Your task to perform on an android device: turn off notifications settings in the gmail app Image 0: 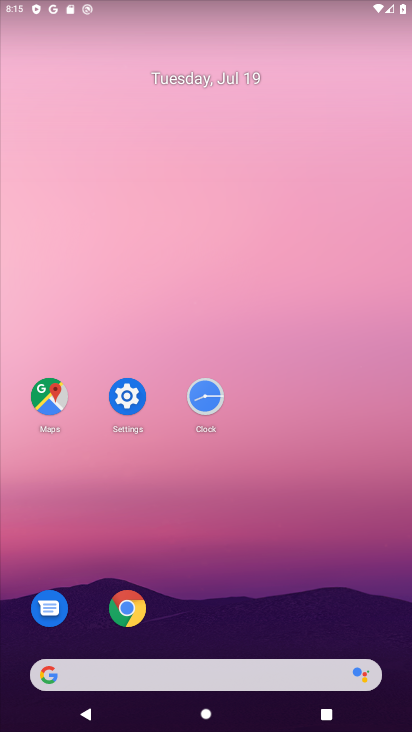
Step 0: drag from (394, 706) to (295, 157)
Your task to perform on an android device: turn off notifications settings in the gmail app Image 1: 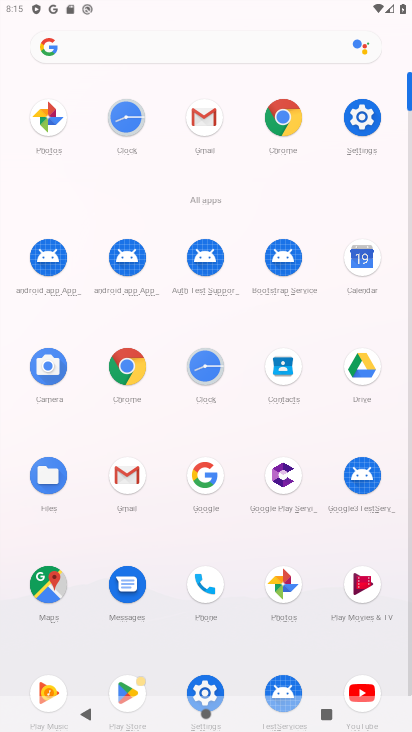
Step 1: click (130, 468)
Your task to perform on an android device: turn off notifications settings in the gmail app Image 2: 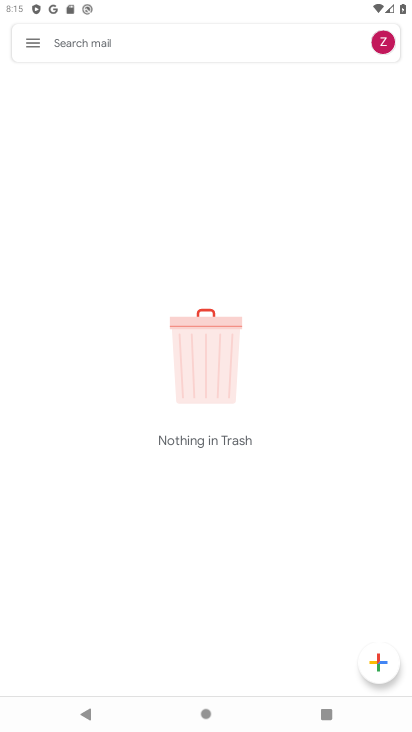
Step 2: click (29, 46)
Your task to perform on an android device: turn off notifications settings in the gmail app Image 3: 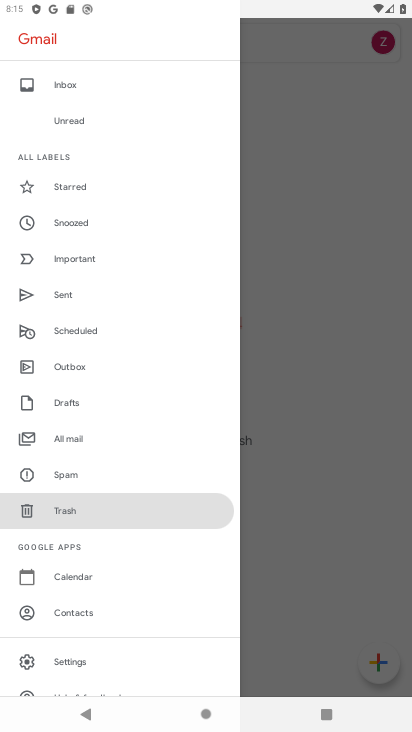
Step 3: click (63, 660)
Your task to perform on an android device: turn off notifications settings in the gmail app Image 4: 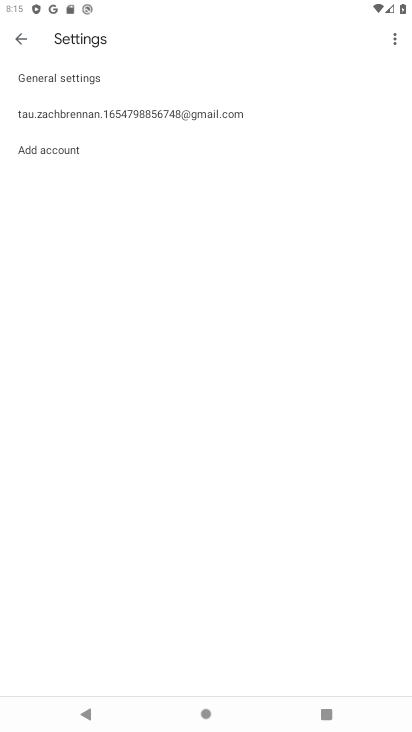
Step 4: click (115, 116)
Your task to perform on an android device: turn off notifications settings in the gmail app Image 5: 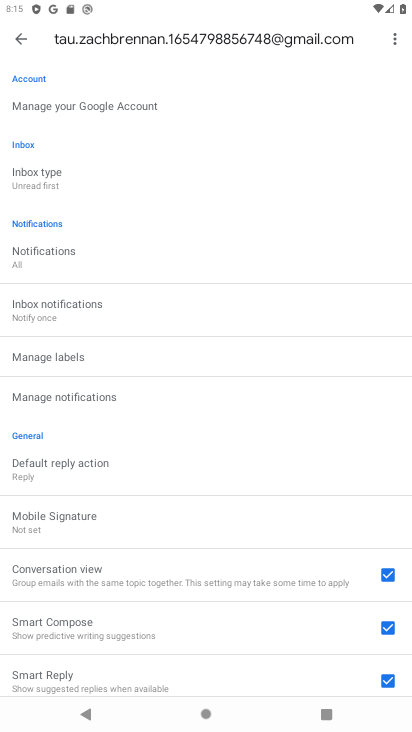
Step 5: click (37, 249)
Your task to perform on an android device: turn off notifications settings in the gmail app Image 6: 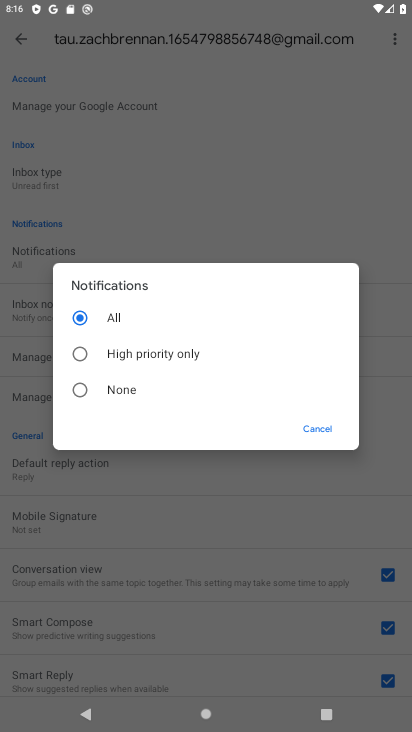
Step 6: click (76, 389)
Your task to perform on an android device: turn off notifications settings in the gmail app Image 7: 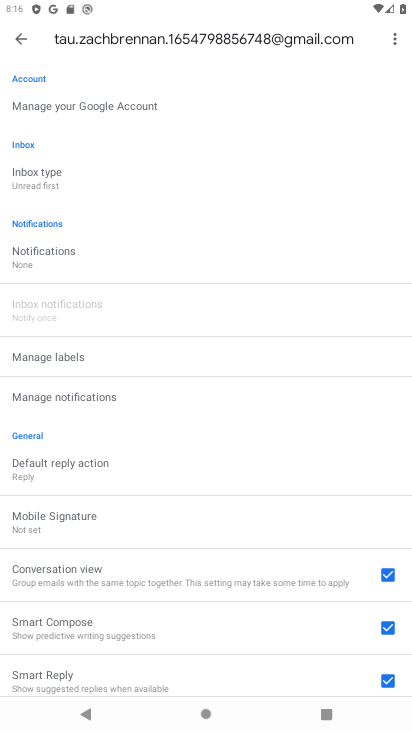
Step 7: task complete